Your task to perform on an android device: Add logitech g903 to the cart on target, then select checkout. Image 0: 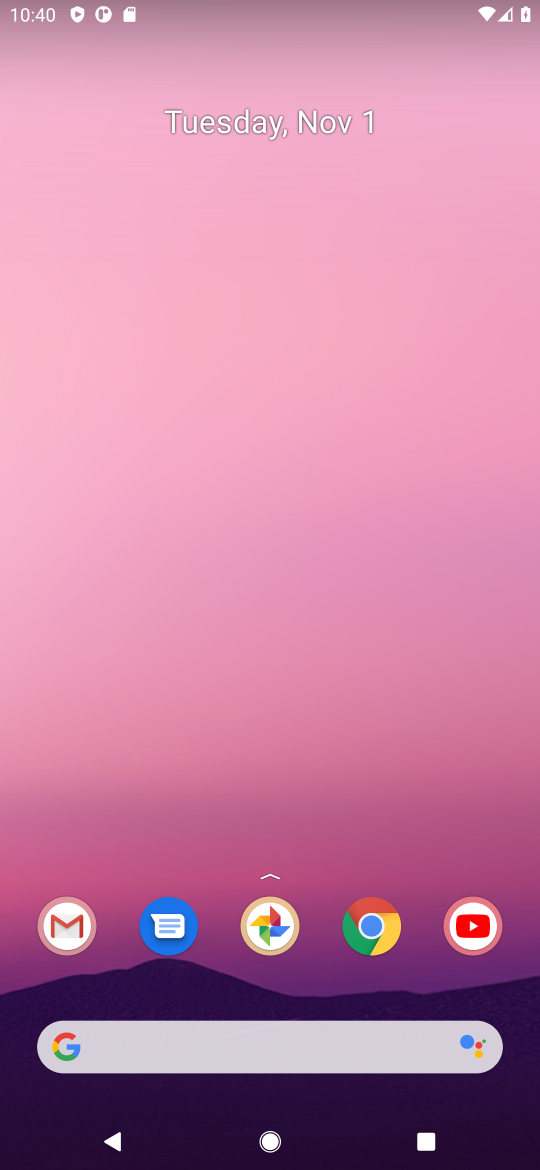
Step 0: click (373, 917)
Your task to perform on an android device: Add logitech g903 to the cart on target, then select checkout. Image 1: 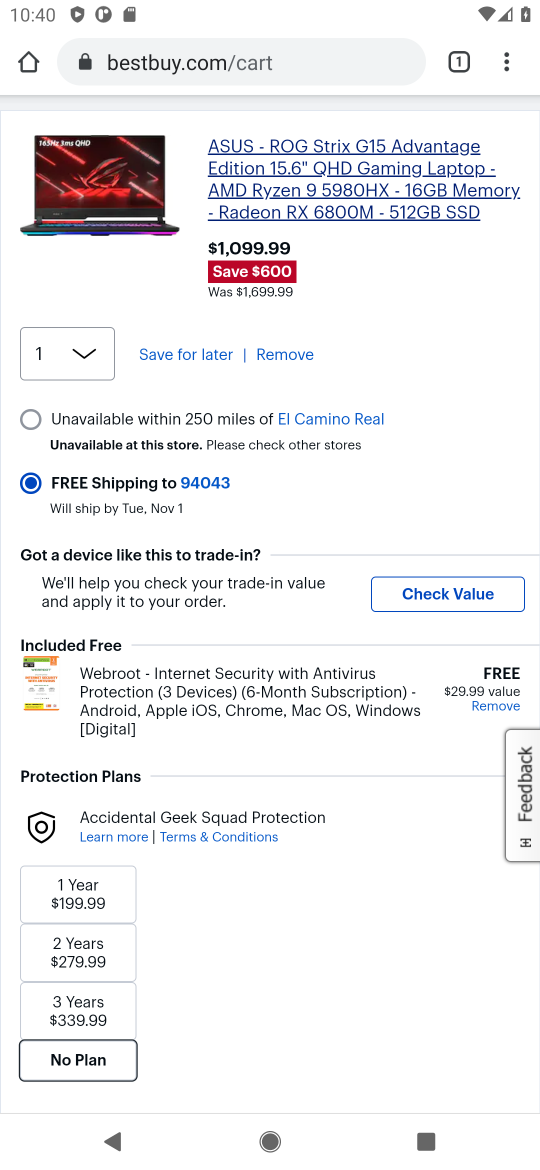
Step 1: click (176, 53)
Your task to perform on an android device: Add logitech g903 to the cart on target, then select checkout. Image 2: 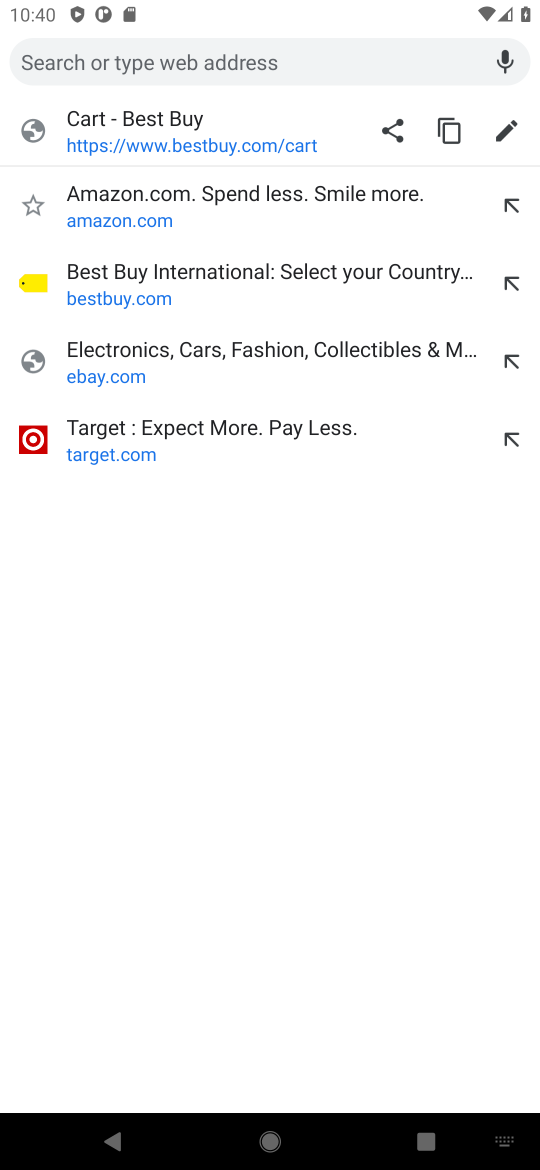
Step 2: type "target"
Your task to perform on an android device: Add logitech g903 to the cart on target, then select checkout. Image 3: 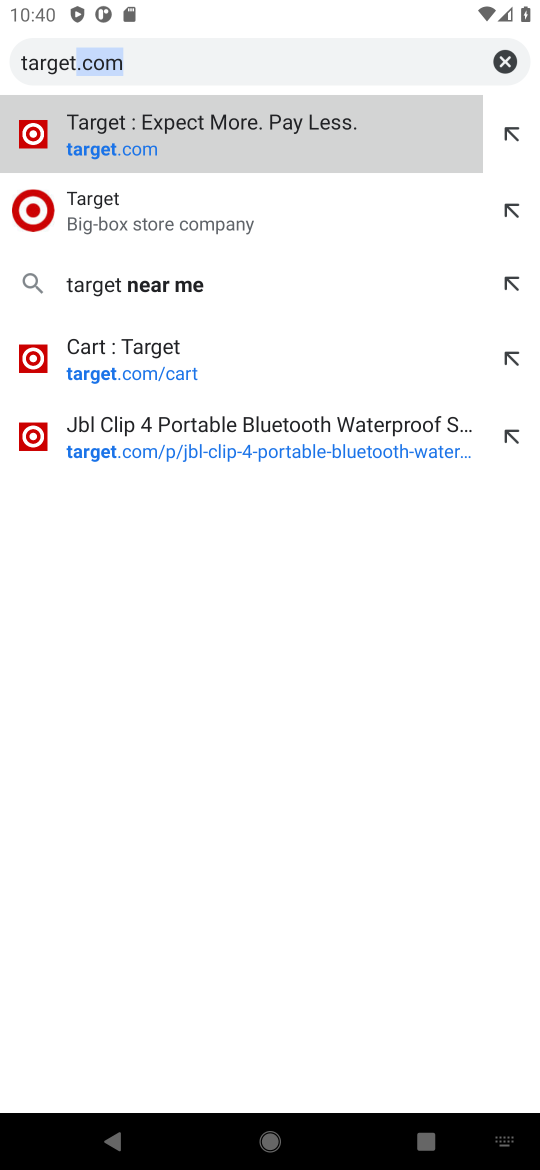
Step 3: click (153, 144)
Your task to perform on an android device: Add logitech g903 to the cart on target, then select checkout. Image 4: 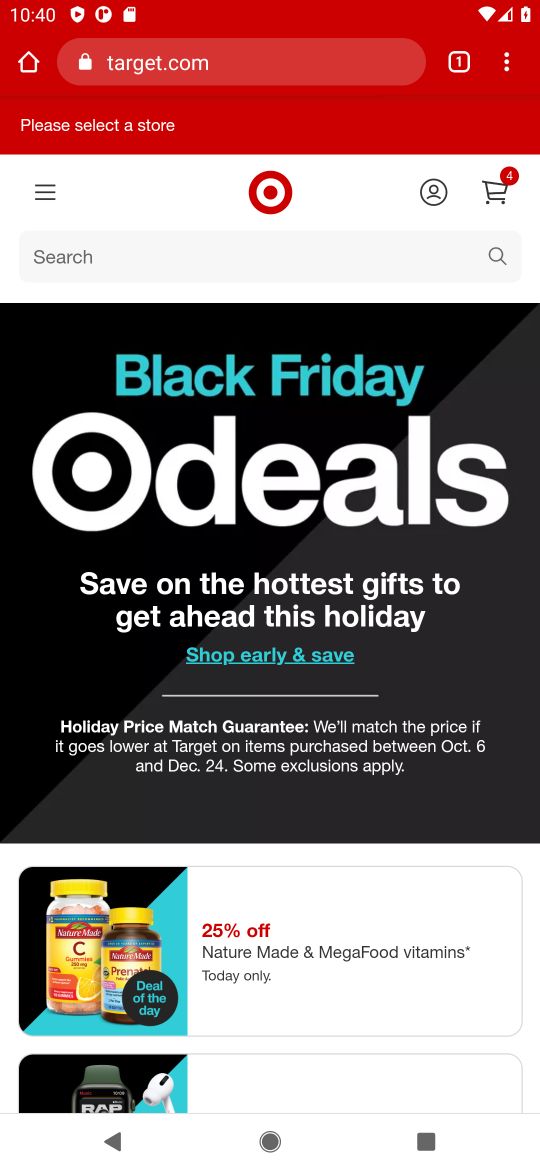
Step 4: click (489, 251)
Your task to perform on an android device: Add logitech g903 to the cart on target, then select checkout. Image 5: 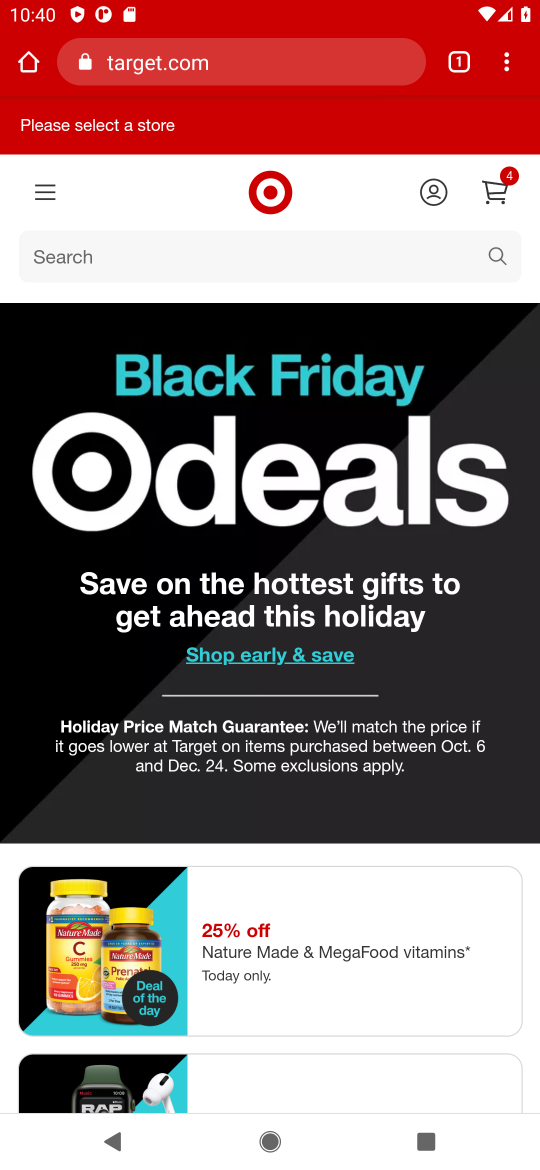
Step 5: click (491, 256)
Your task to perform on an android device: Add logitech g903 to the cart on target, then select checkout. Image 6: 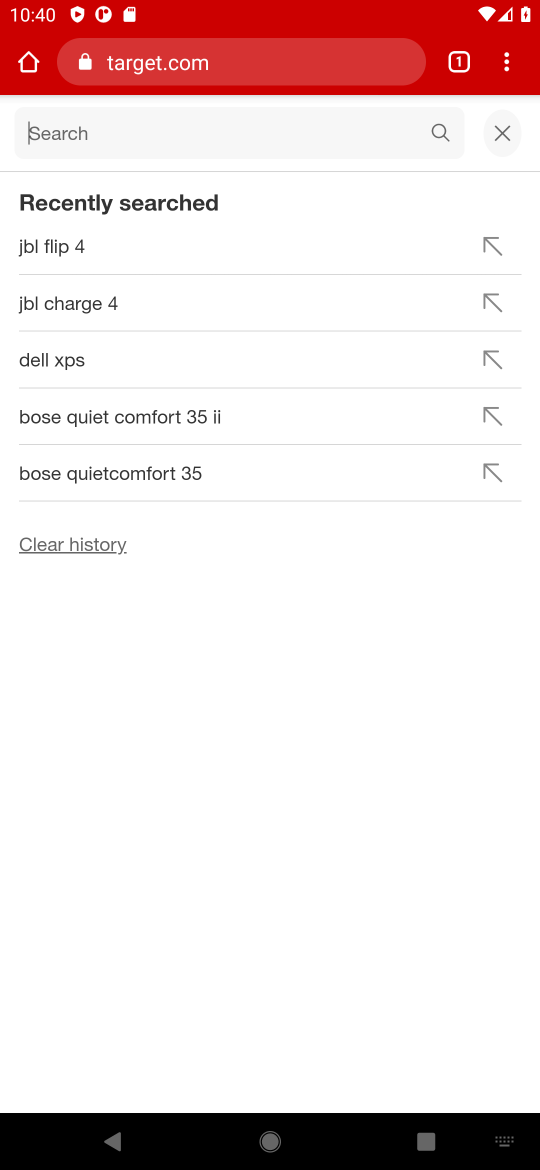
Step 6: type "logitechg903"
Your task to perform on an android device: Add logitech g903 to the cart on target, then select checkout. Image 7: 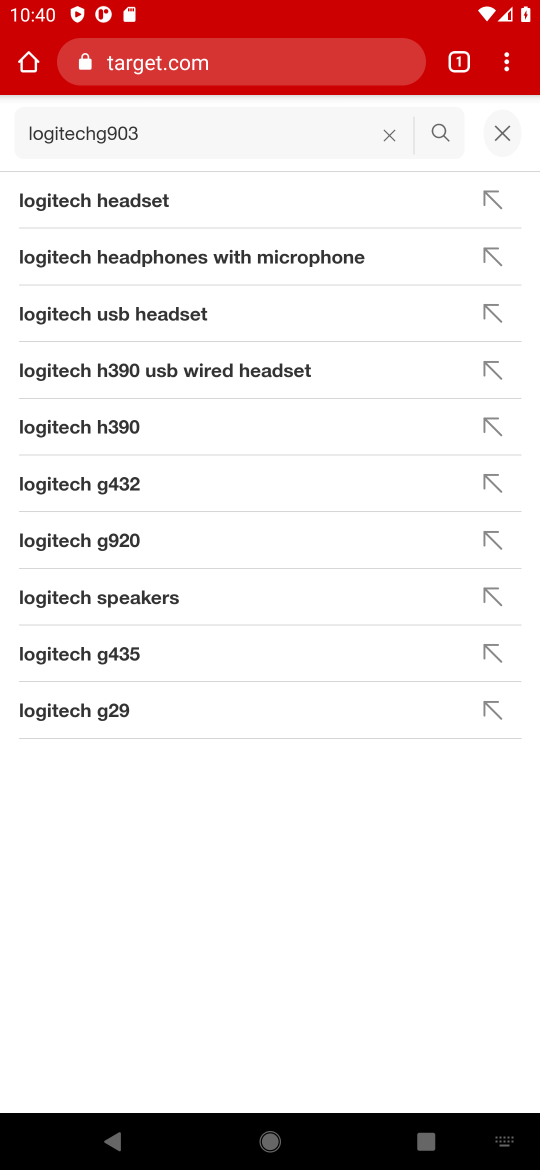
Step 7: click (56, 431)
Your task to perform on an android device: Add logitech g903 to the cart on target, then select checkout. Image 8: 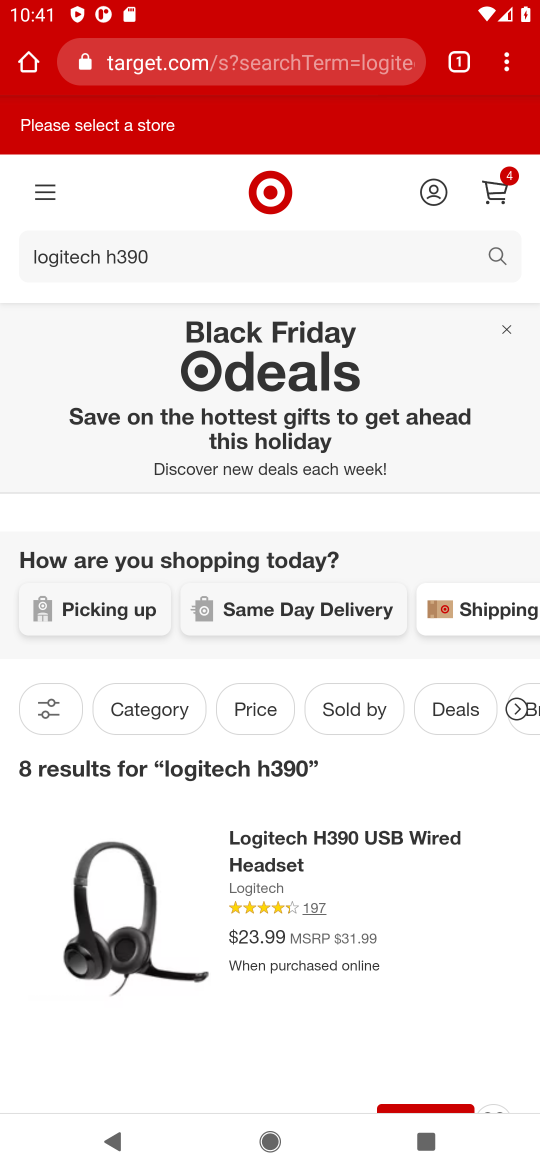
Step 8: drag from (281, 905) to (369, 24)
Your task to perform on an android device: Add logitech g903 to the cart on target, then select checkout. Image 9: 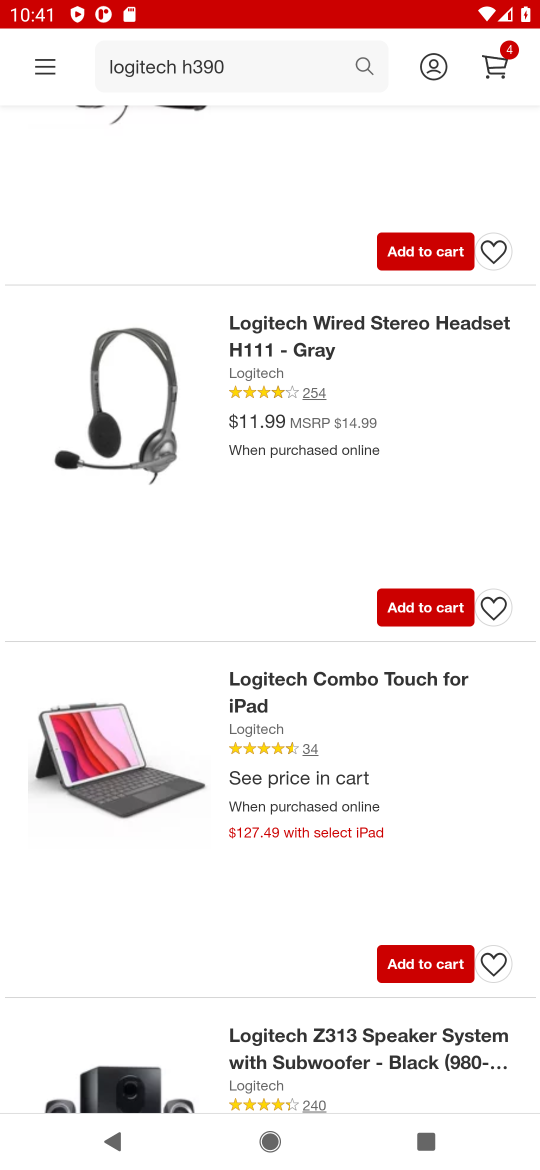
Step 9: click (173, 118)
Your task to perform on an android device: Add logitech g903 to the cart on target, then select checkout. Image 10: 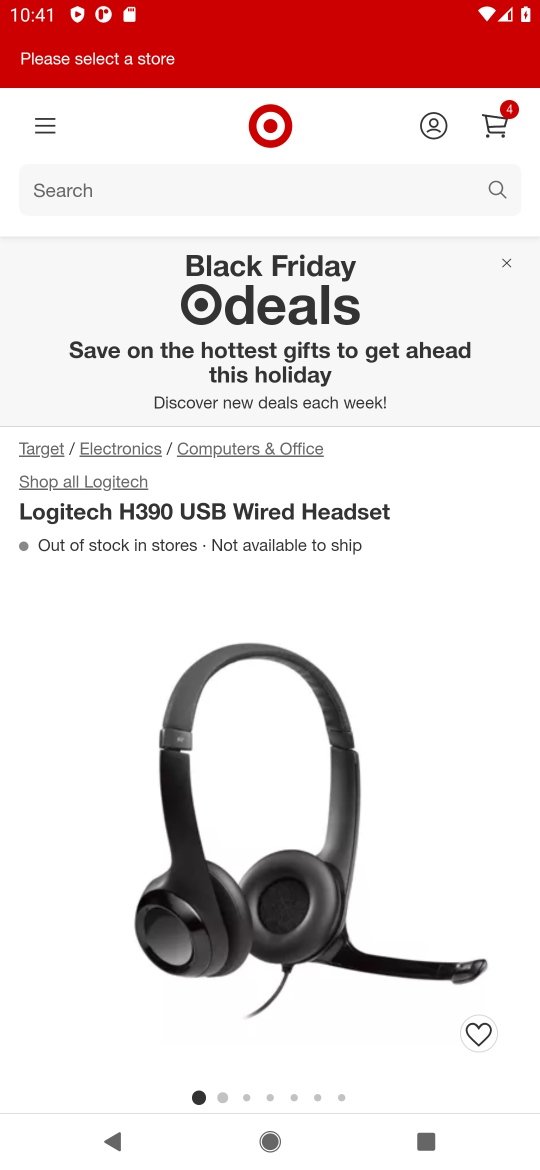
Step 10: drag from (169, 645) to (196, 205)
Your task to perform on an android device: Add logitech g903 to the cart on target, then select checkout. Image 11: 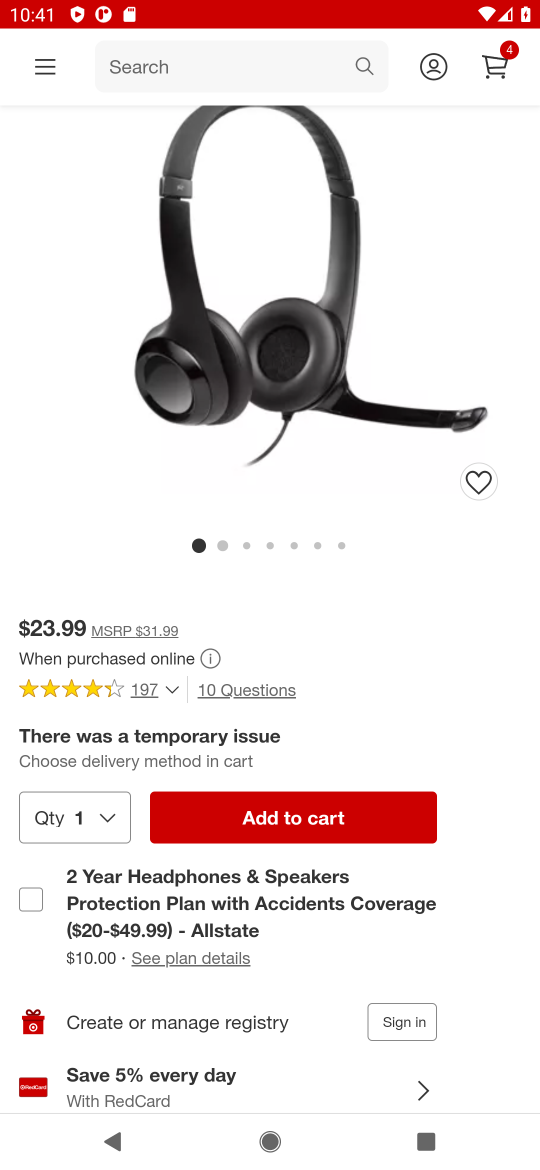
Step 11: click (289, 816)
Your task to perform on an android device: Add logitech g903 to the cart on target, then select checkout. Image 12: 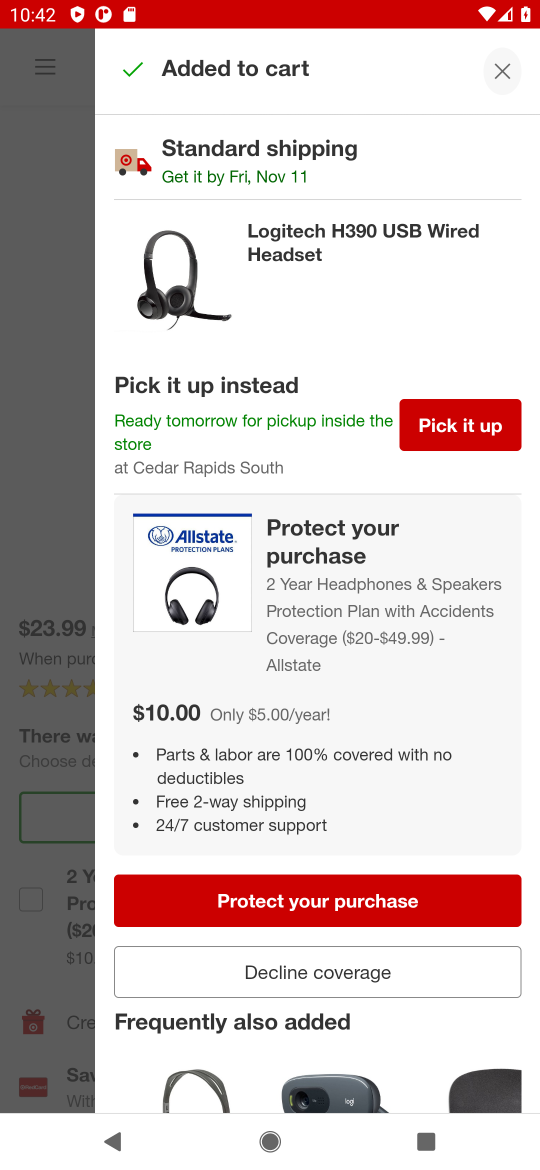
Step 12: click (330, 906)
Your task to perform on an android device: Add logitech g903 to the cart on target, then select checkout. Image 13: 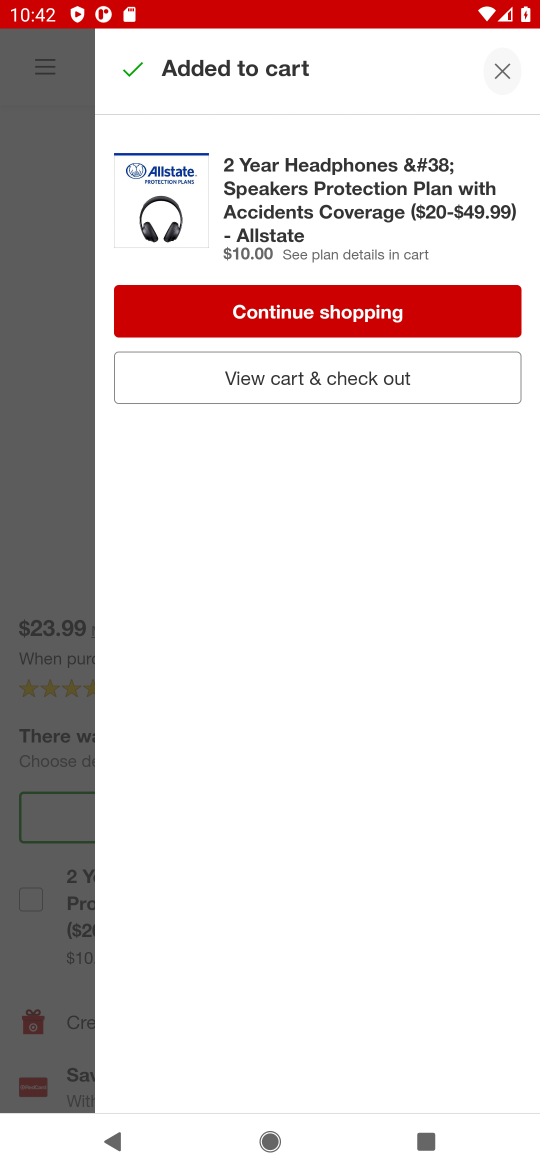
Step 13: click (237, 383)
Your task to perform on an android device: Add logitech g903 to the cart on target, then select checkout. Image 14: 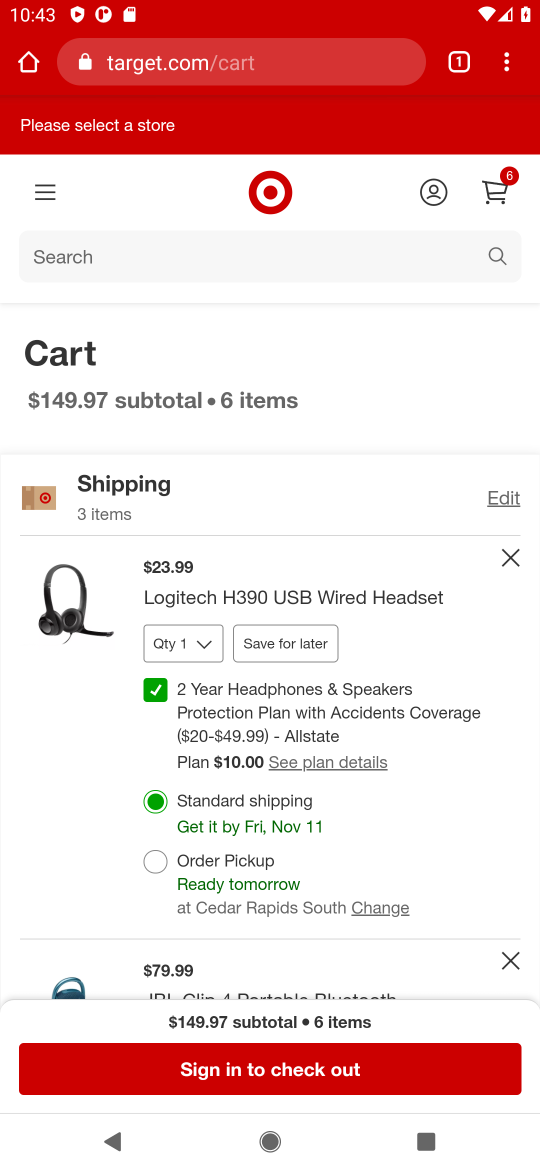
Step 14: click (287, 1083)
Your task to perform on an android device: Add logitech g903 to the cart on target, then select checkout. Image 15: 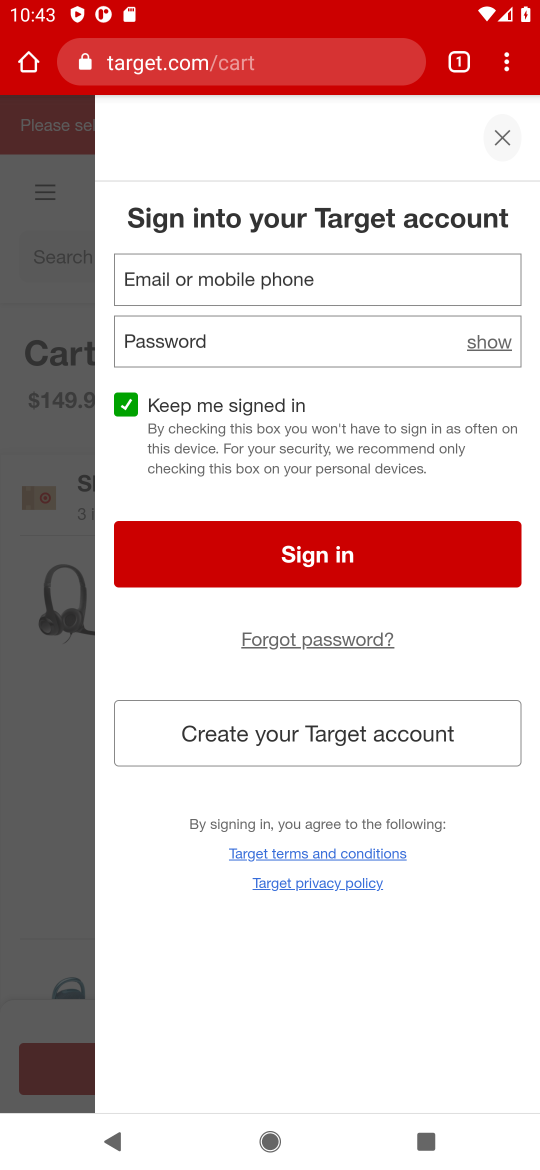
Step 15: task complete